Your task to perform on an android device: Find coffee shops on Maps Image 0: 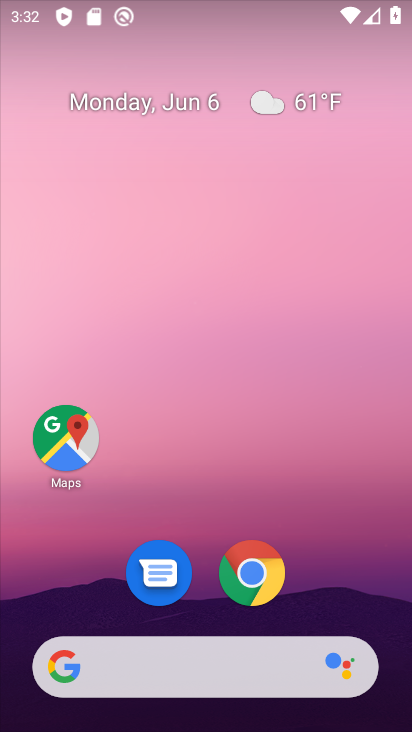
Step 0: press home button
Your task to perform on an android device: Find coffee shops on Maps Image 1: 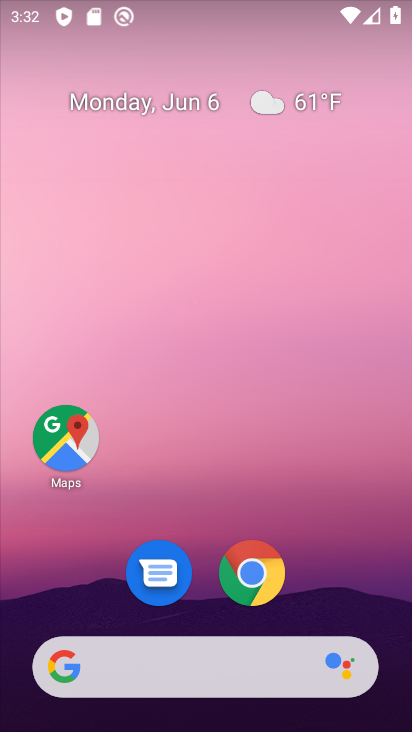
Step 1: click (72, 454)
Your task to perform on an android device: Find coffee shops on Maps Image 2: 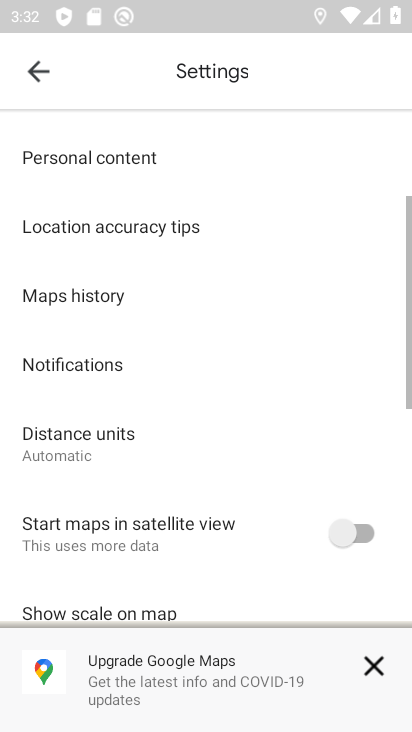
Step 2: click (48, 60)
Your task to perform on an android device: Find coffee shops on Maps Image 3: 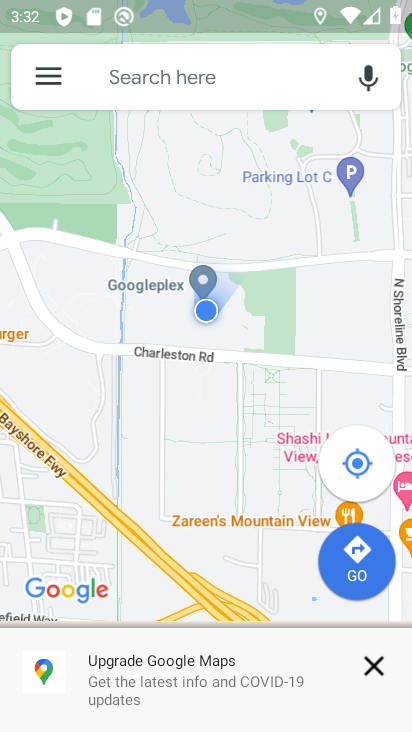
Step 3: click (143, 72)
Your task to perform on an android device: Find coffee shops on Maps Image 4: 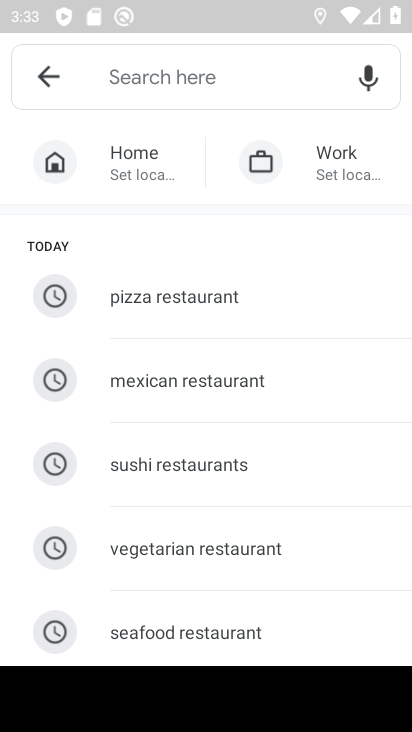
Step 4: drag from (215, 613) to (185, 246)
Your task to perform on an android device: Find coffee shops on Maps Image 5: 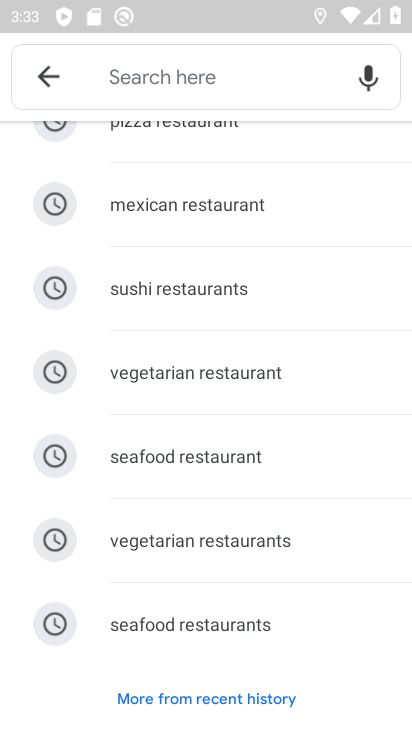
Step 5: drag from (201, 559) to (185, 349)
Your task to perform on an android device: Find coffee shops on Maps Image 6: 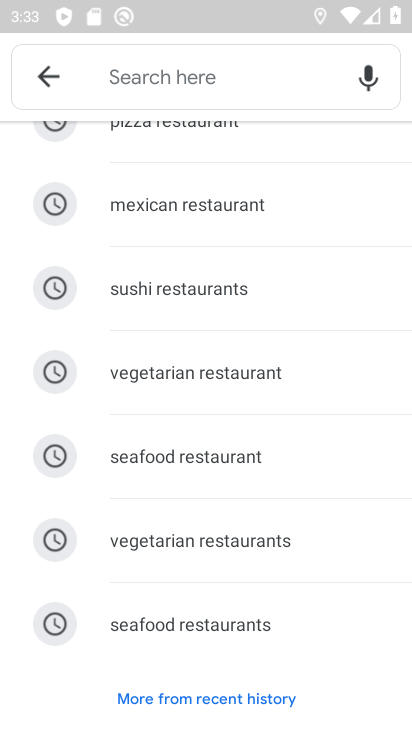
Step 6: drag from (163, 220) to (158, 662)
Your task to perform on an android device: Find coffee shops on Maps Image 7: 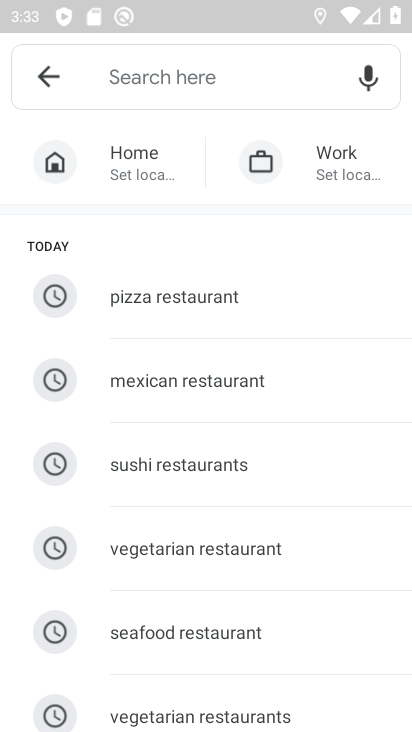
Step 7: type "c"
Your task to perform on an android device: Find coffee shops on Maps Image 8: 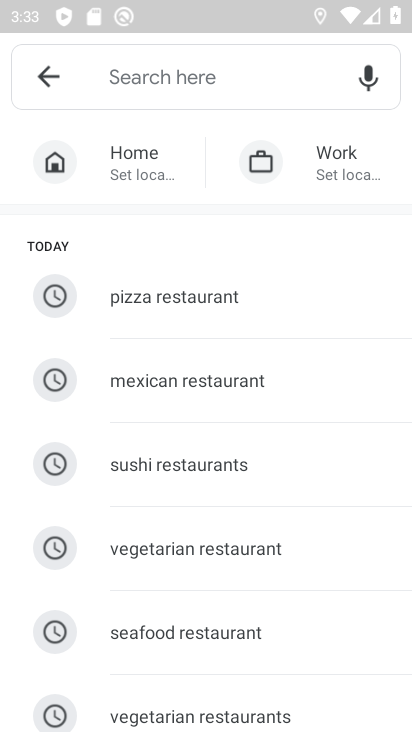
Step 8: click (220, 65)
Your task to perform on an android device: Find coffee shops on Maps Image 9: 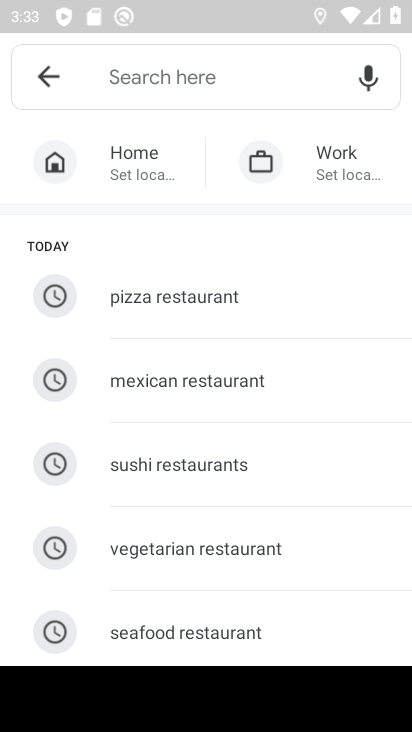
Step 9: type "coffee"
Your task to perform on an android device: Find coffee shops on Maps Image 10: 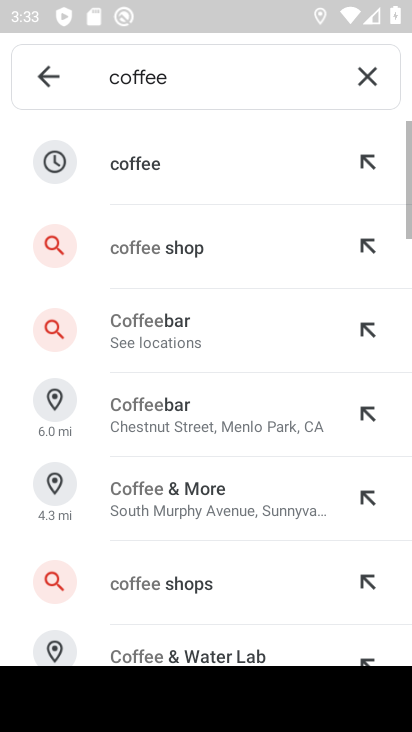
Step 10: click (168, 246)
Your task to perform on an android device: Find coffee shops on Maps Image 11: 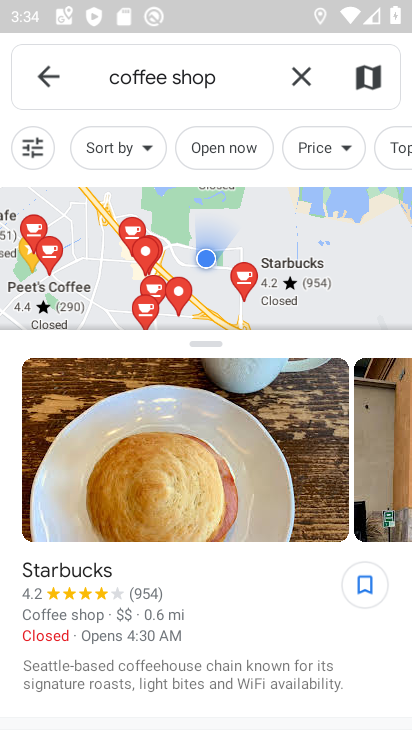
Step 11: task complete